Your task to perform on an android device: Open eBay Image 0: 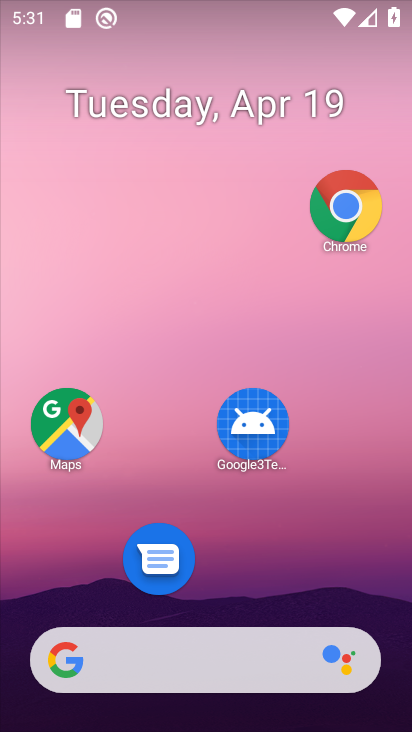
Step 0: drag from (241, 659) to (332, 287)
Your task to perform on an android device: Open eBay Image 1: 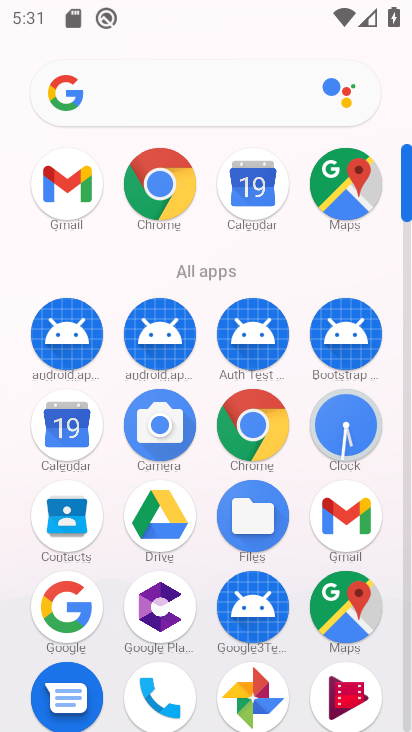
Step 1: click (282, 435)
Your task to perform on an android device: Open eBay Image 2: 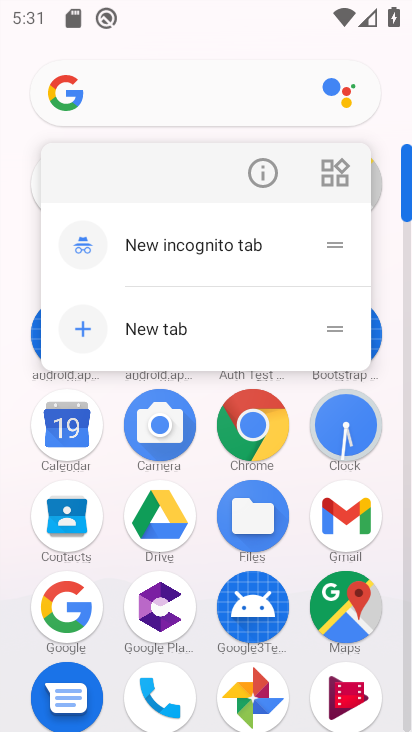
Step 2: click (259, 444)
Your task to perform on an android device: Open eBay Image 3: 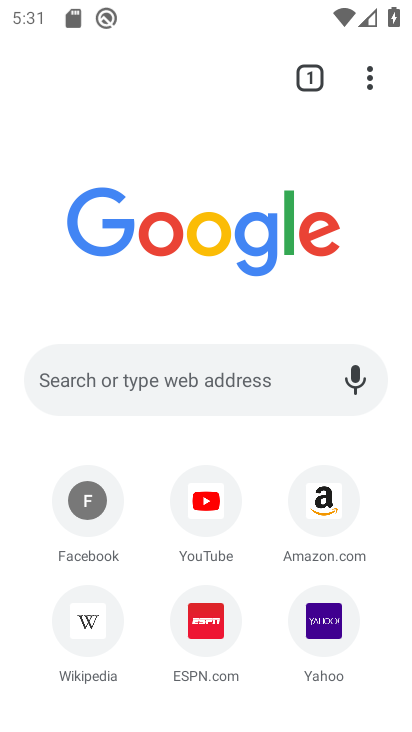
Step 3: click (172, 384)
Your task to perform on an android device: Open eBay Image 4: 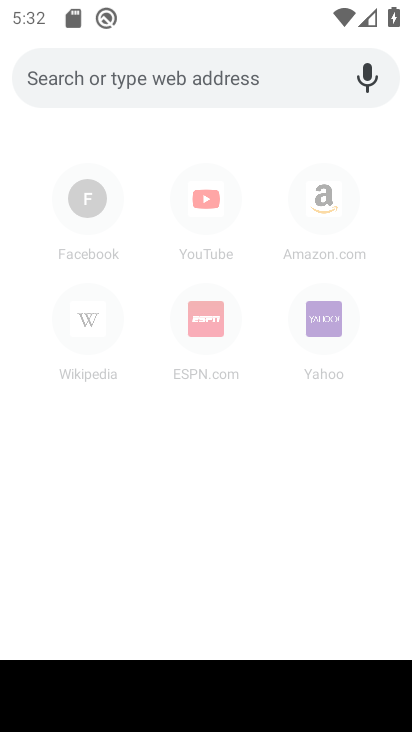
Step 4: type "ebay"
Your task to perform on an android device: Open eBay Image 5: 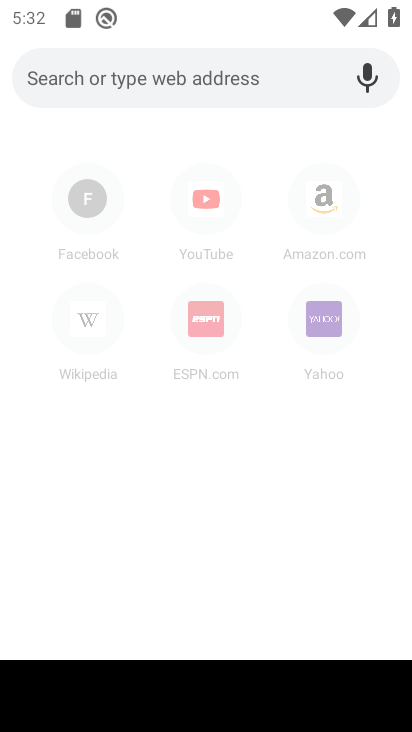
Step 5: click (215, 76)
Your task to perform on an android device: Open eBay Image 6: 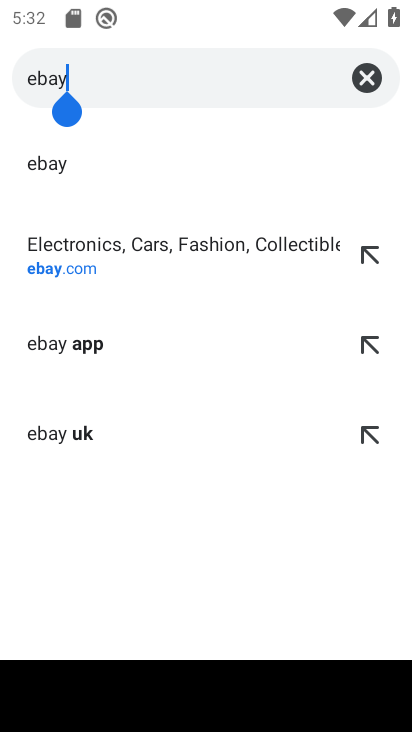
Step 6: click (91, 349)
Your task to perform on an android device: Open eBay Image 7: 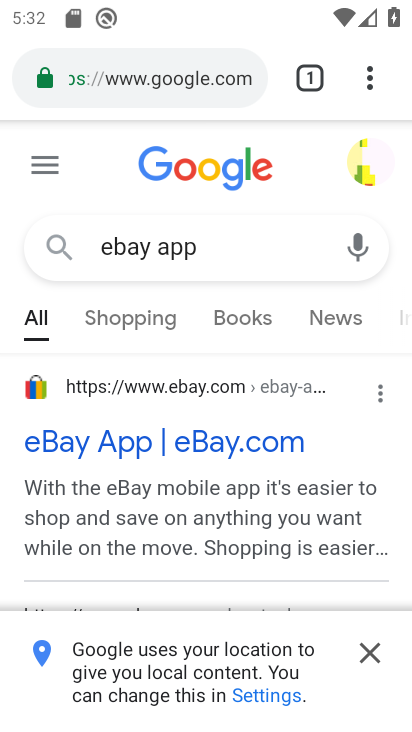
Step 7: click (246, 445)
Your task to perform on an android device: Open eBay Image 8: 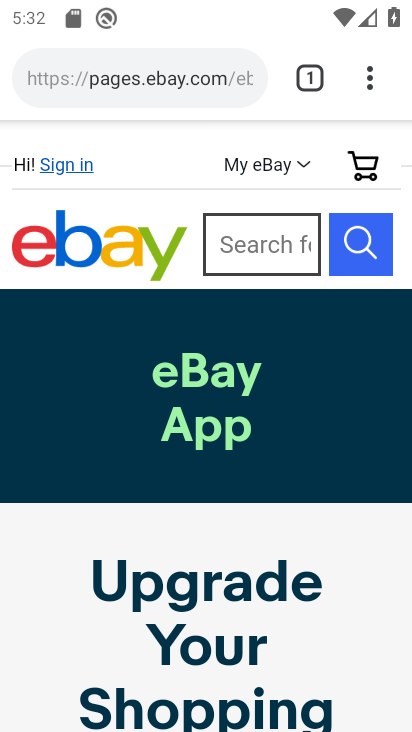
Step 8: task complete